Your task to perform on an android device: Turn off the flashlight Image 0: 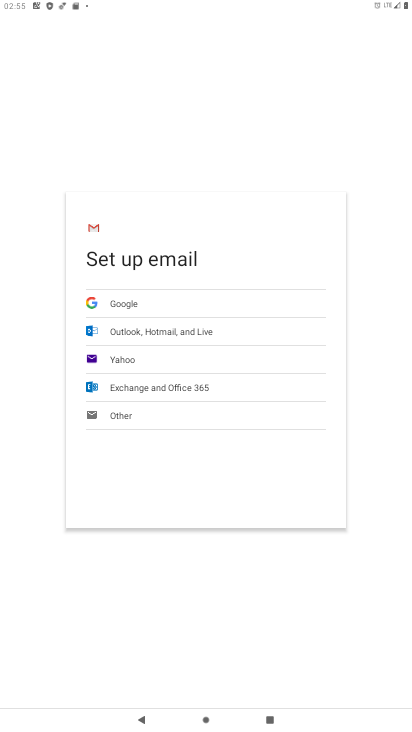
Step 0: press home button
Your task to perform on an android device: Turn off the flashlight Image 1: 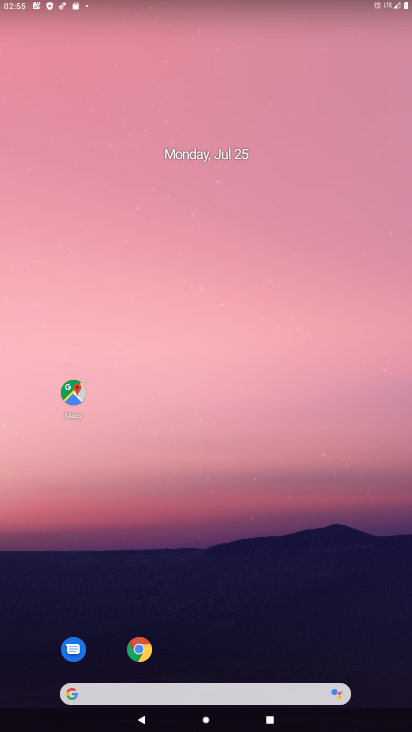
Step 1: drag from (215, 13) to (224, 443)
Your task to perform on an android device: Turn off the flashlight Image 2: 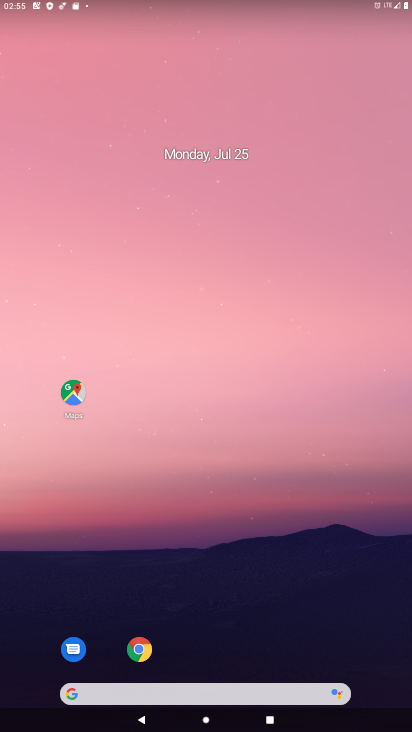
Step 2: drag from (211, 6) to (230, 390)
Your task to perform on an android device: Turn off the flashlight Image 3: 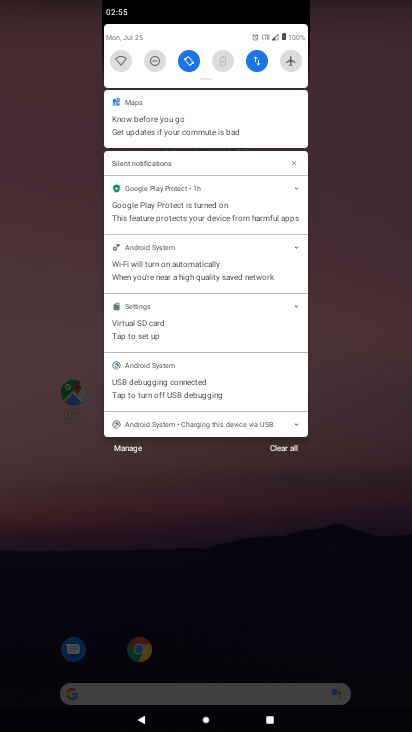
Step 3: drag from (207, 143) to (209, 391)
Your task to perform on an android device: Turn off the flashlight Image 4: 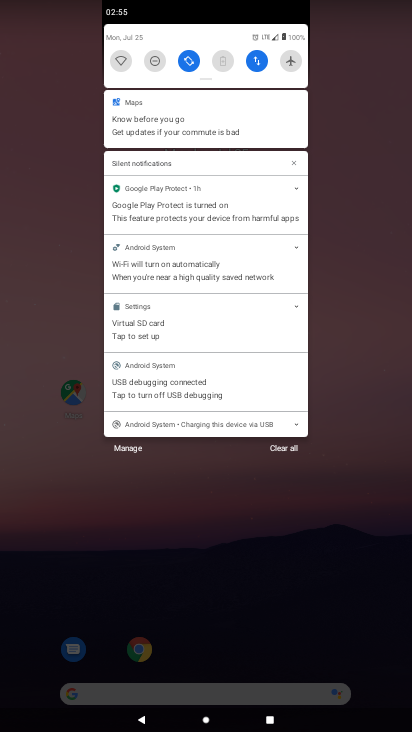
Step 4: drag from (207, 88) to (214, 408)
Your task to perform on an android device: Turn off the flashlight Image 5: 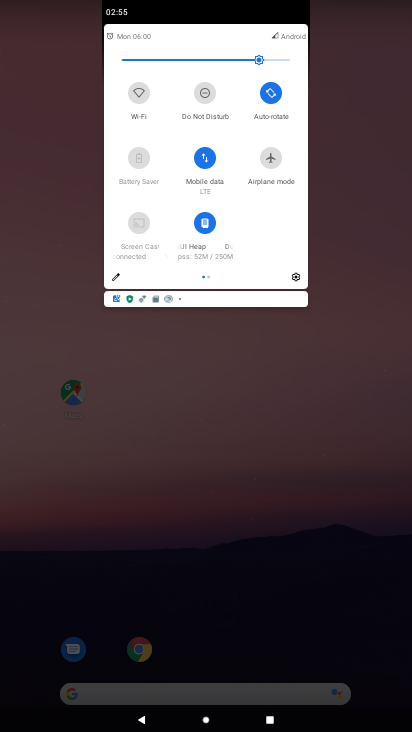
Step 5: click (116, 276)
Your task to perform on an android device: Turn off the flashlight Image 6: 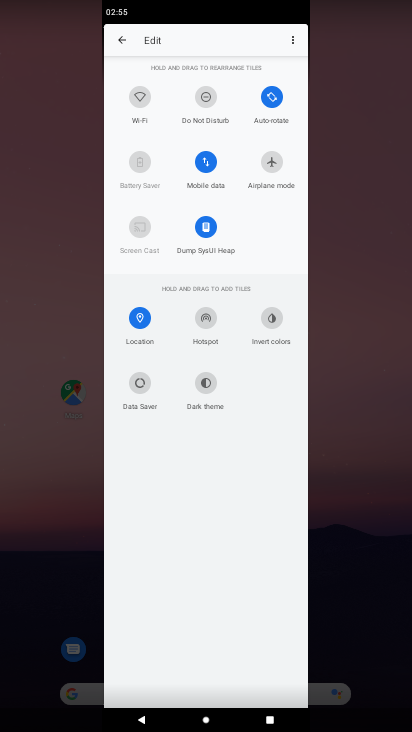
Step 6: task complete